Your task to perform on an android device: See recent photos Image 0: 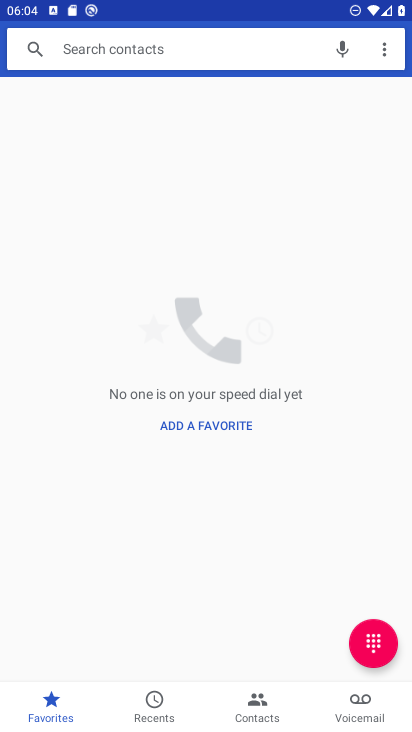
Step 0: press home button
Your task to perform on an android device: See recent photos Image 1: 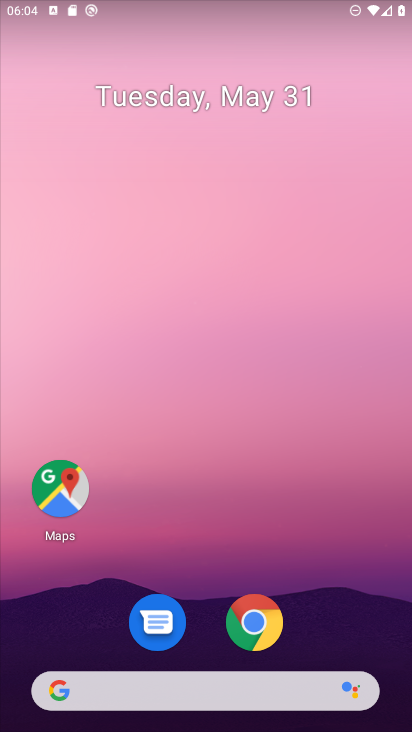
Step 1: drag from (218, 654) to (342, 15)
Your task to perform on an android device: See recent photos Image 2: 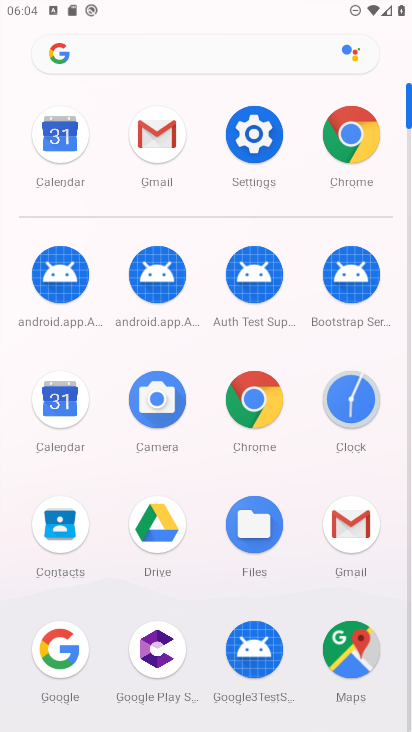
Step 2: drag from (297, 656) to (323, 295)
Your task to perform on an android device: See recent photos Image 3: 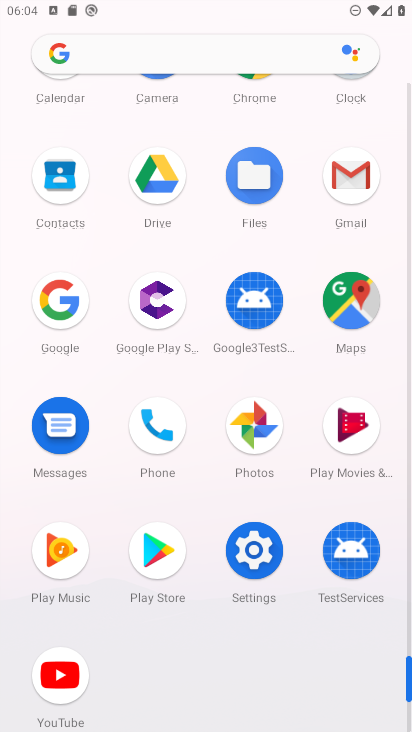
Step 3: drag from (300, 591) to (289, 386)
Your task to perform on an android device: See recent photos Image 4: 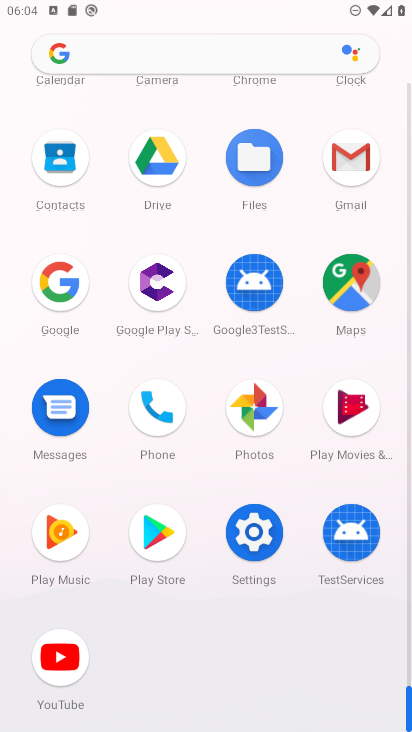
Step 4: click (260, 406)
Your task to perform on an android device: See recent photos Image 5: 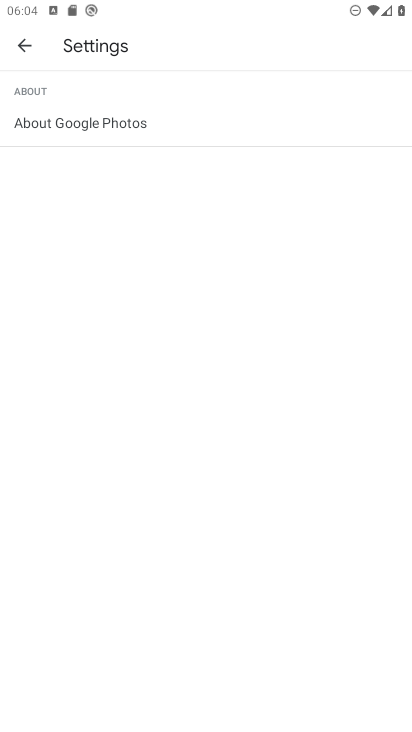
Step 5: task complete